Your task to perform on an android device: install app "VLC for Android" Image 0: 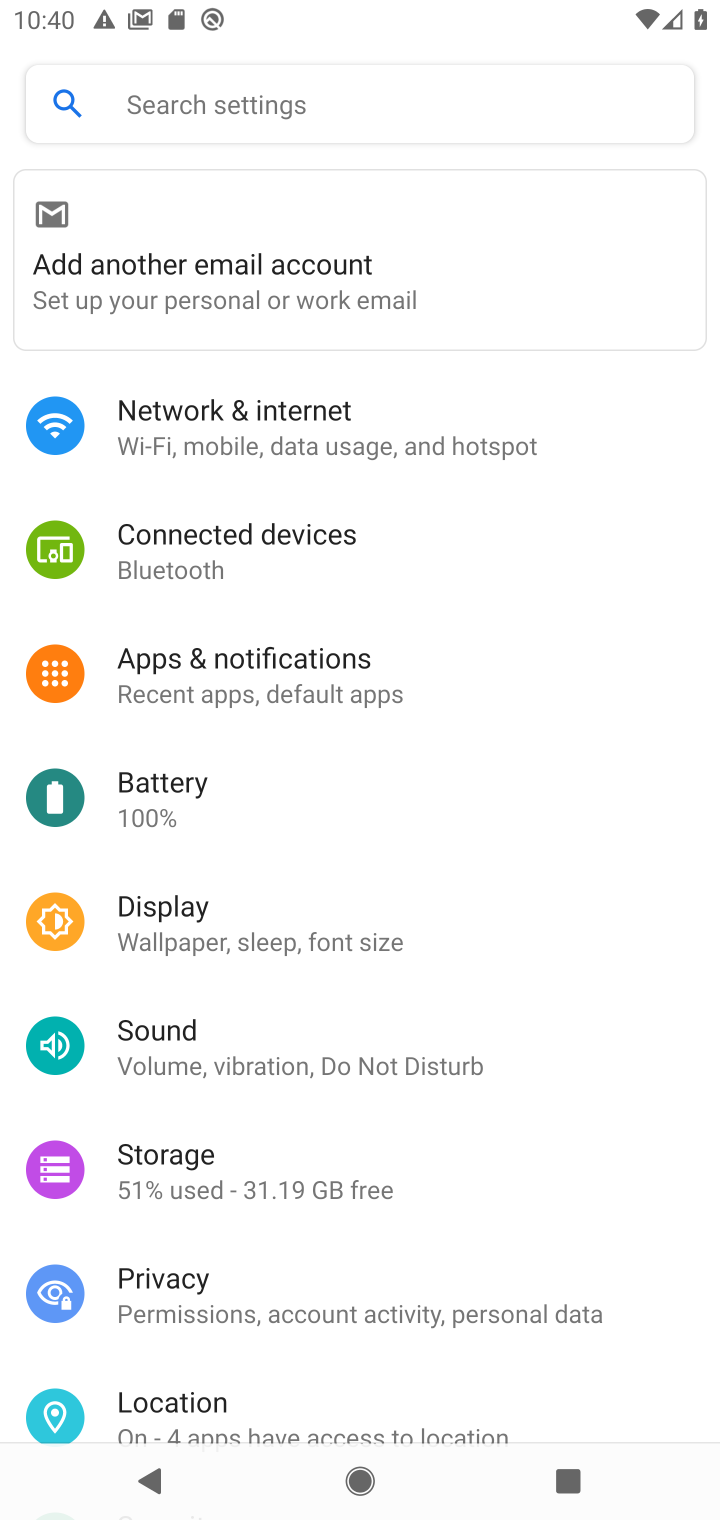
Step 0: press home button
Your task to perform on an android device: install app "VLC for Android" Image 1: 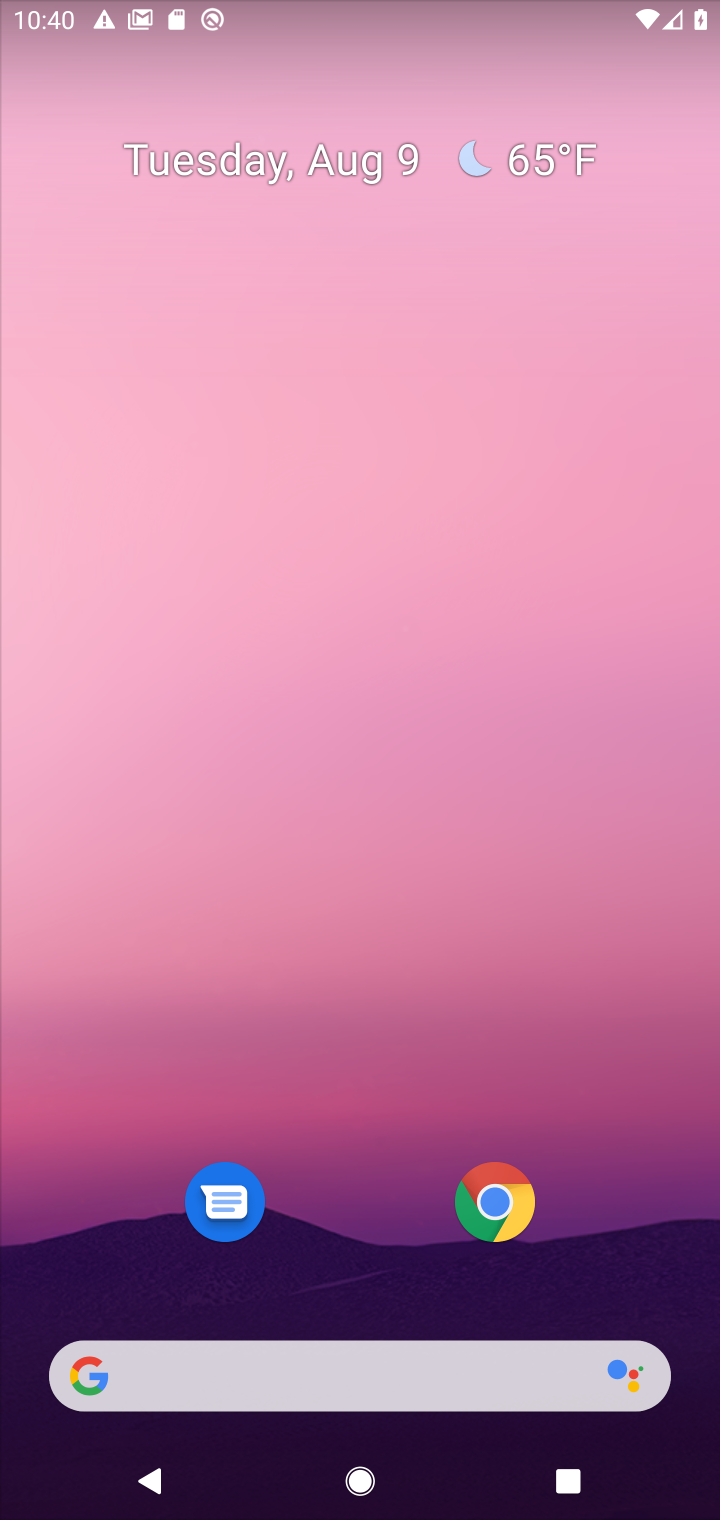
Step 1: drag from (325, 1352) to (281, 273)
Your task to perform on an android device: install app "VLC for Android" Image 2: 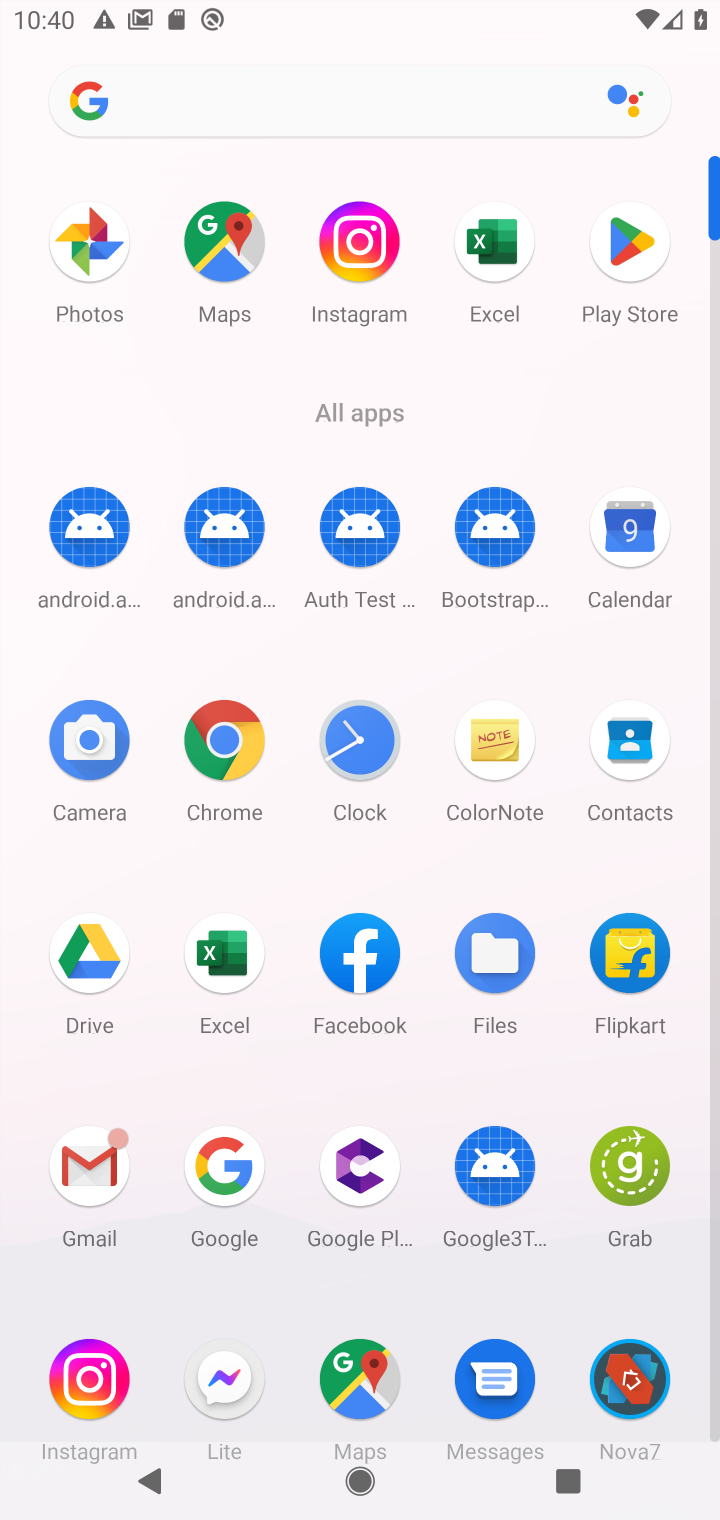
Step 2: click (620, 248)
Your task to perform on an android device: install app "VLC for Android" Image 3: 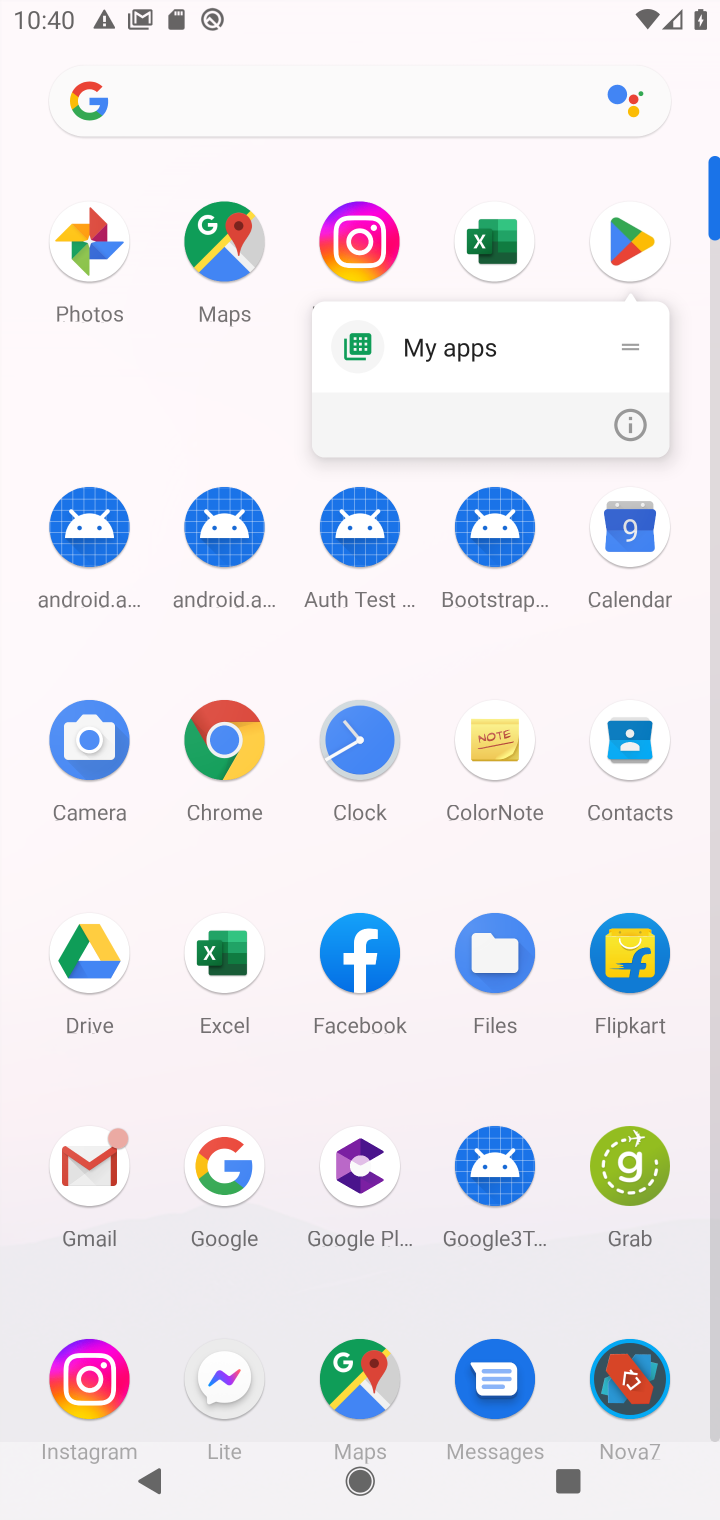
Step 3: click (620, 248)
Your task to perform on an android device: install app "VLC for Android" Image 4: 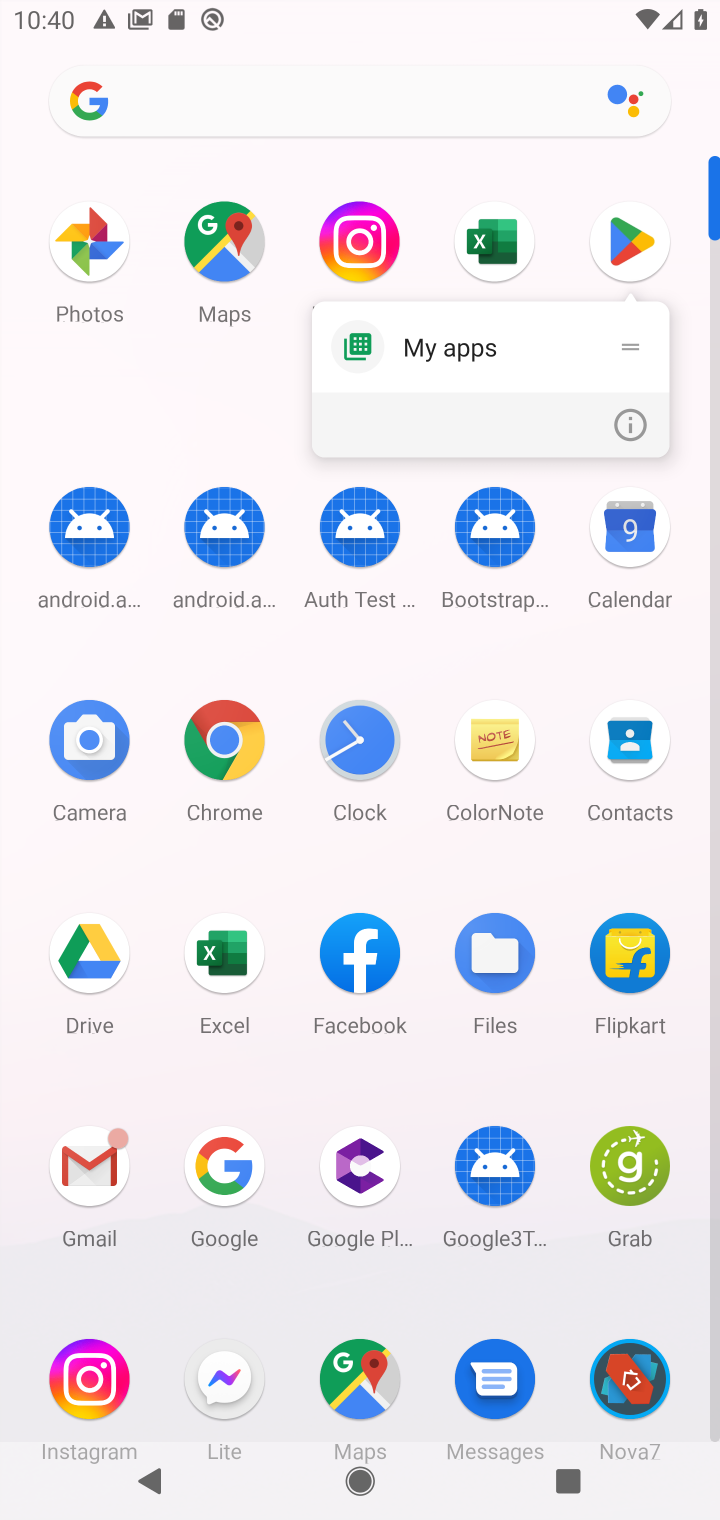
Step 4: click (620, 248)
Your task to perform on an android device: install app "VLC for Android" Image 5: 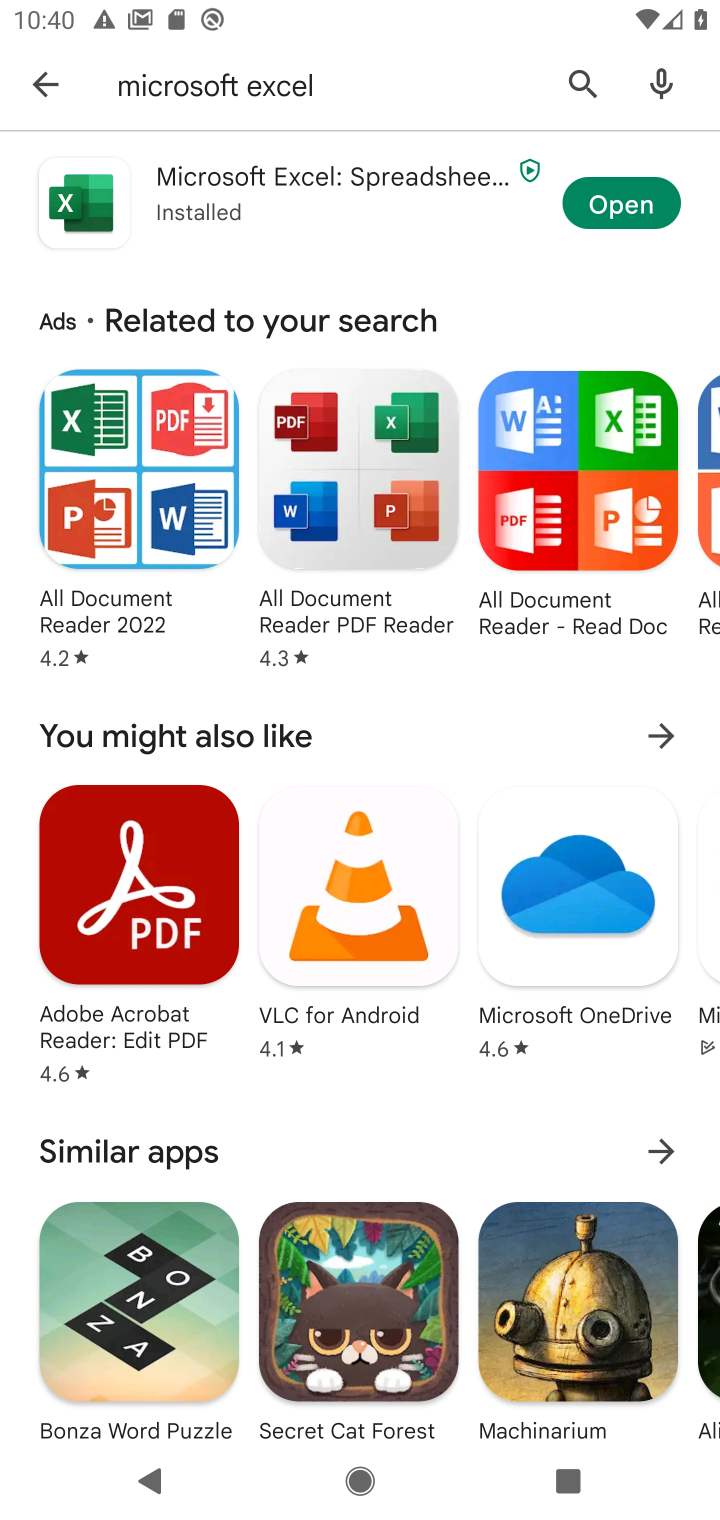
Step 5: click (594, 97)
Your task to perform on an android device: install app "VLC for Android" Image 6: 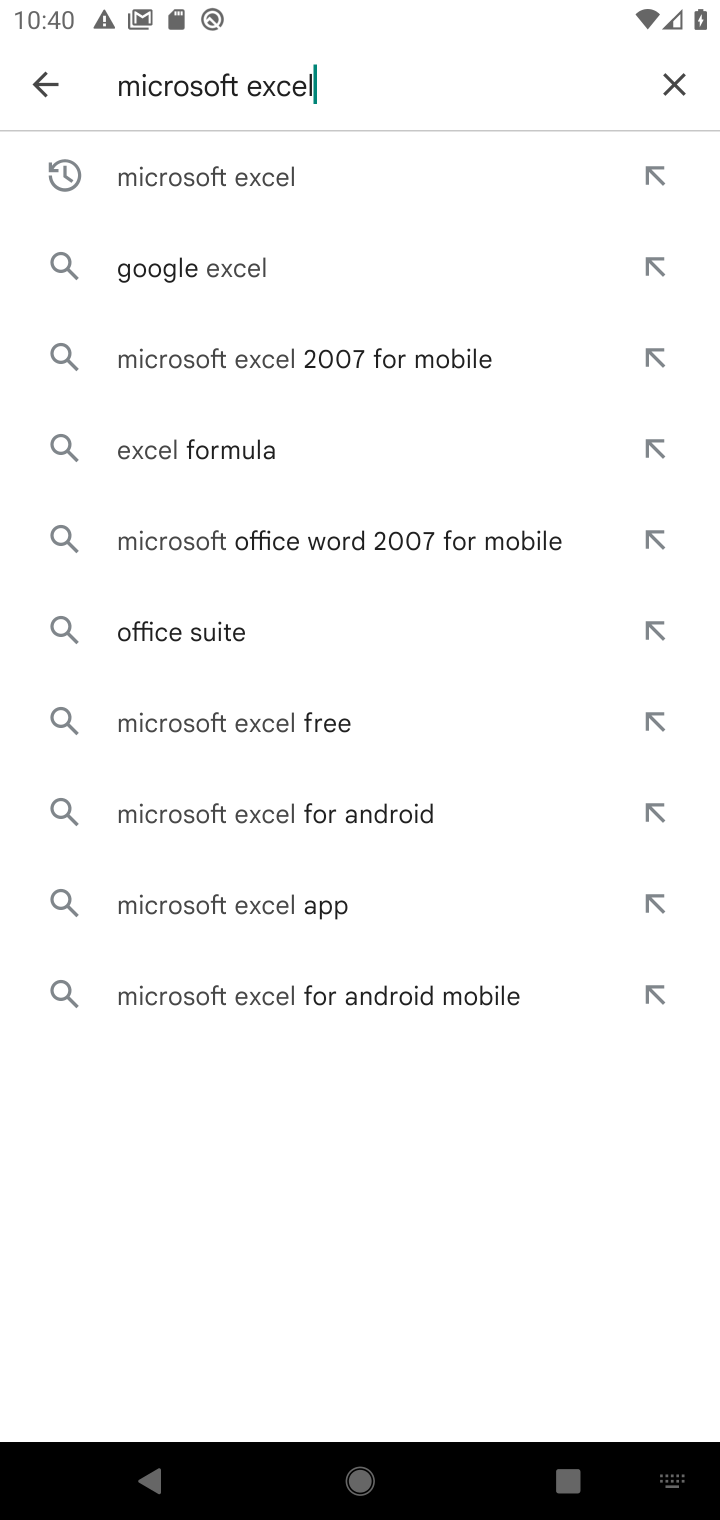
Step 6: click (665, 86)
Your task to perform on an android device: install app "VLC for Android" Image 7: 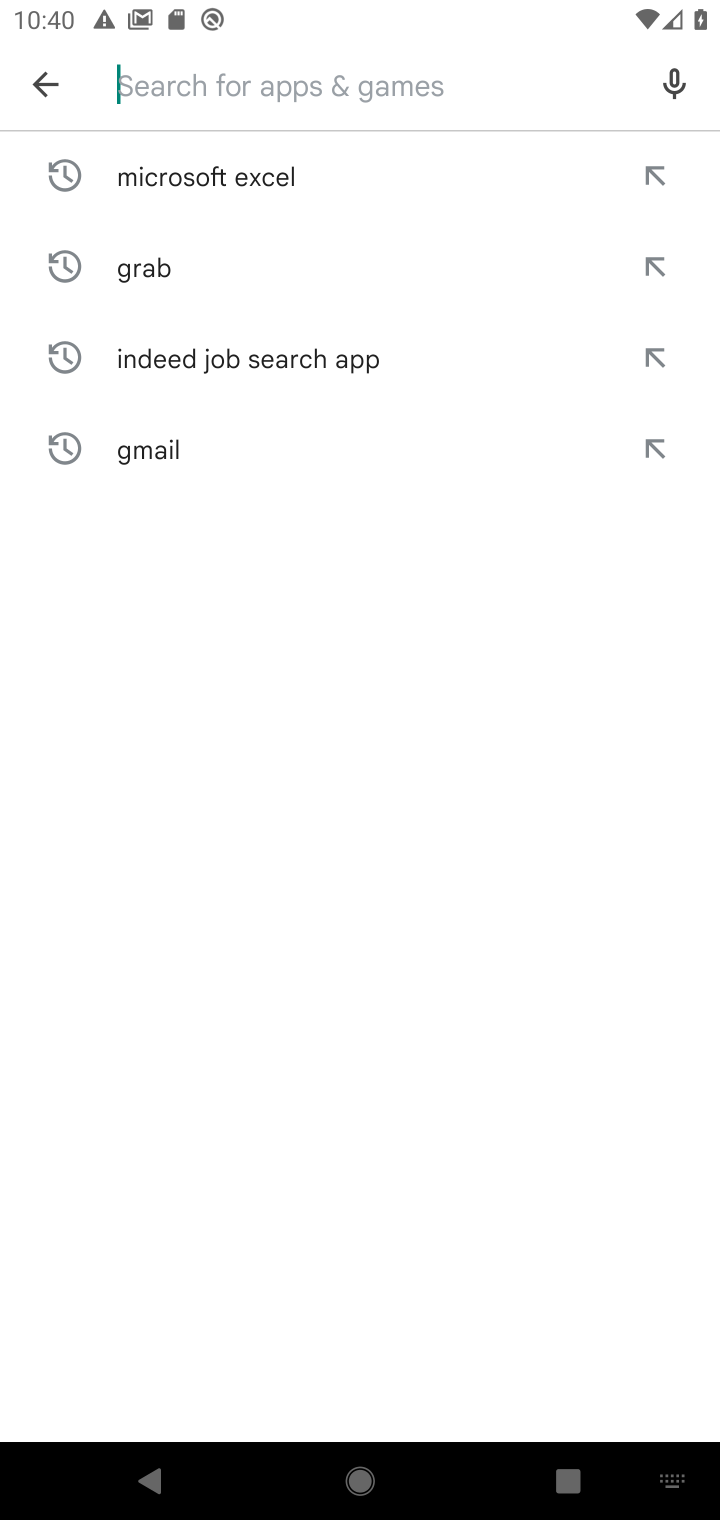
Step 7: type "VLC for Android"
Your task to perform on an android device: install app "VLC for Android" Image 8: 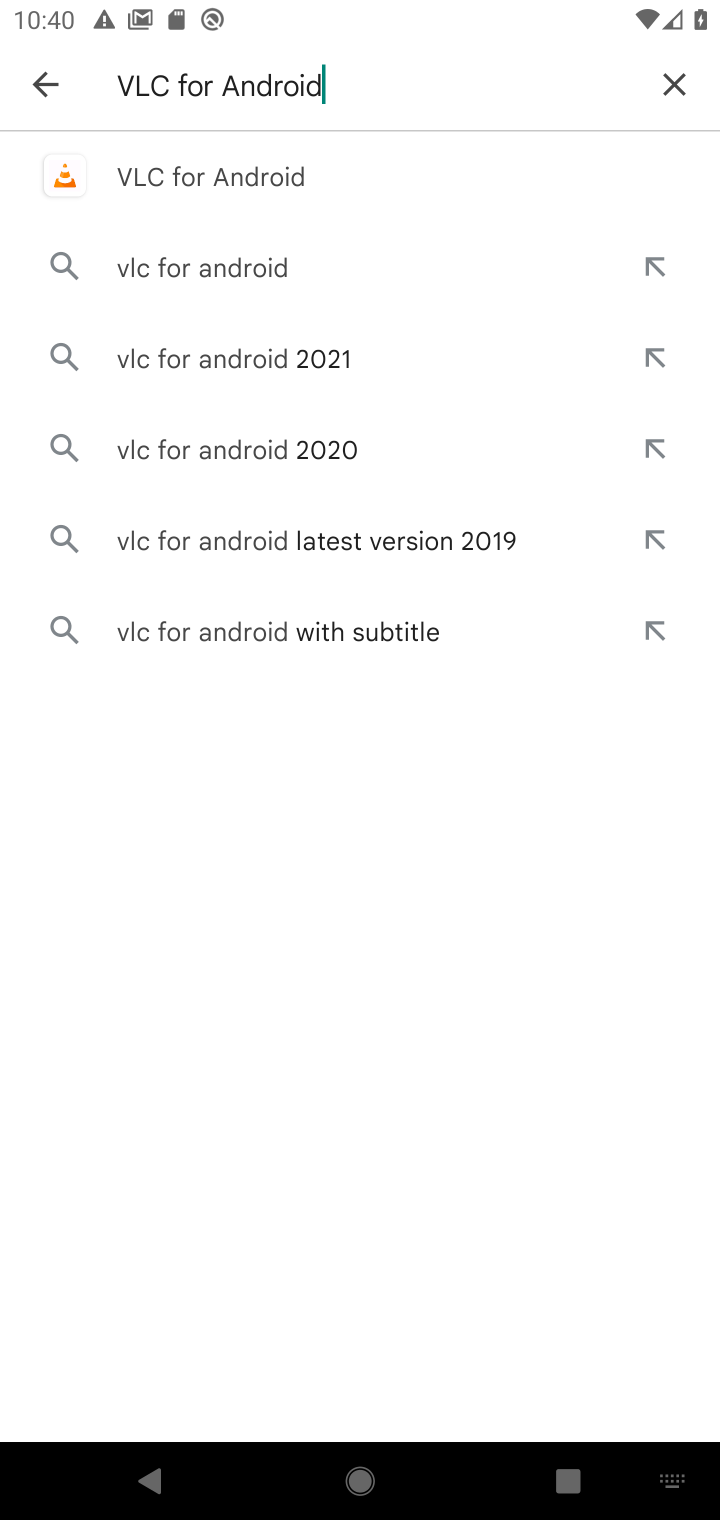
Step 8: click (320, 165)
Your task to perform on an android device: install app "VLC for Android" Image 9: 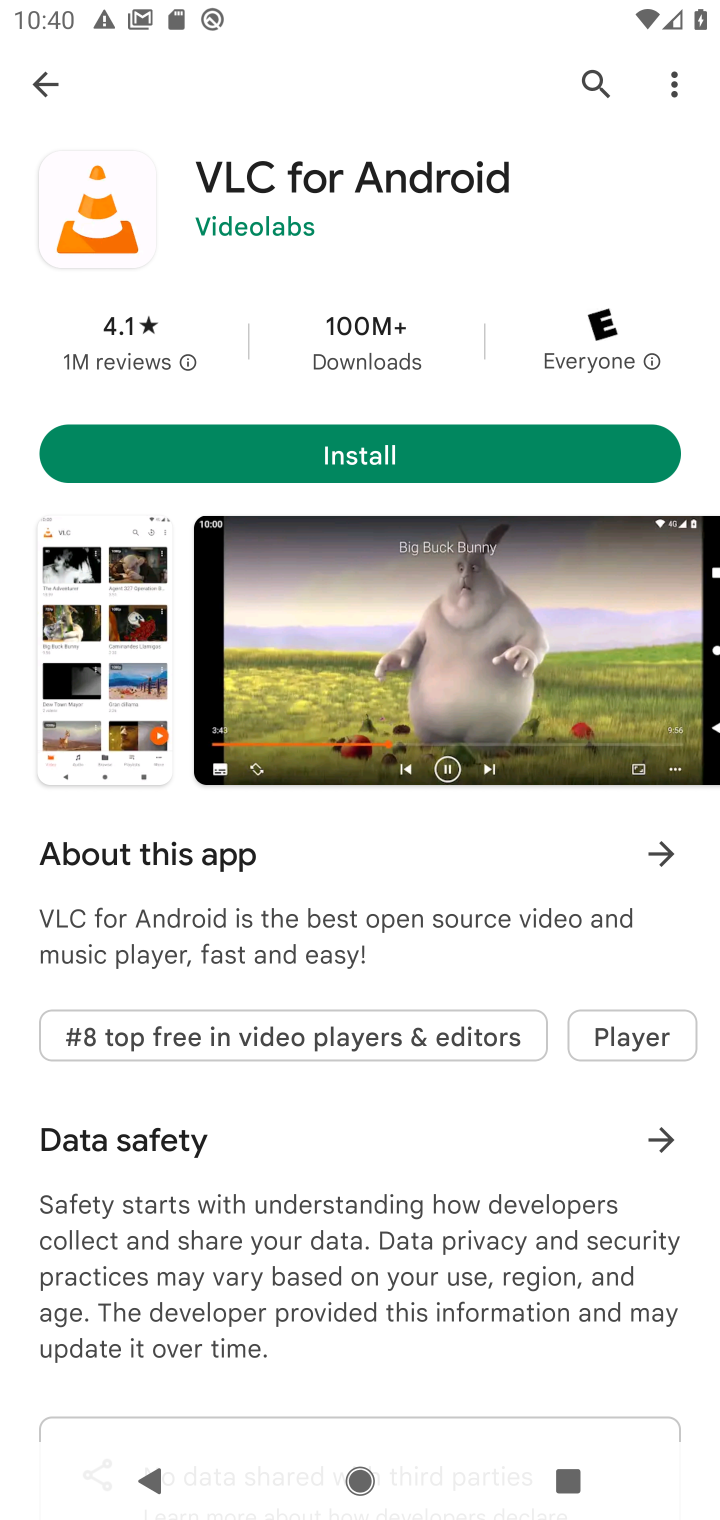
Step 9: click (314, 478)
Your task to perform on an android device: install app "VLC for Android" Image 10: 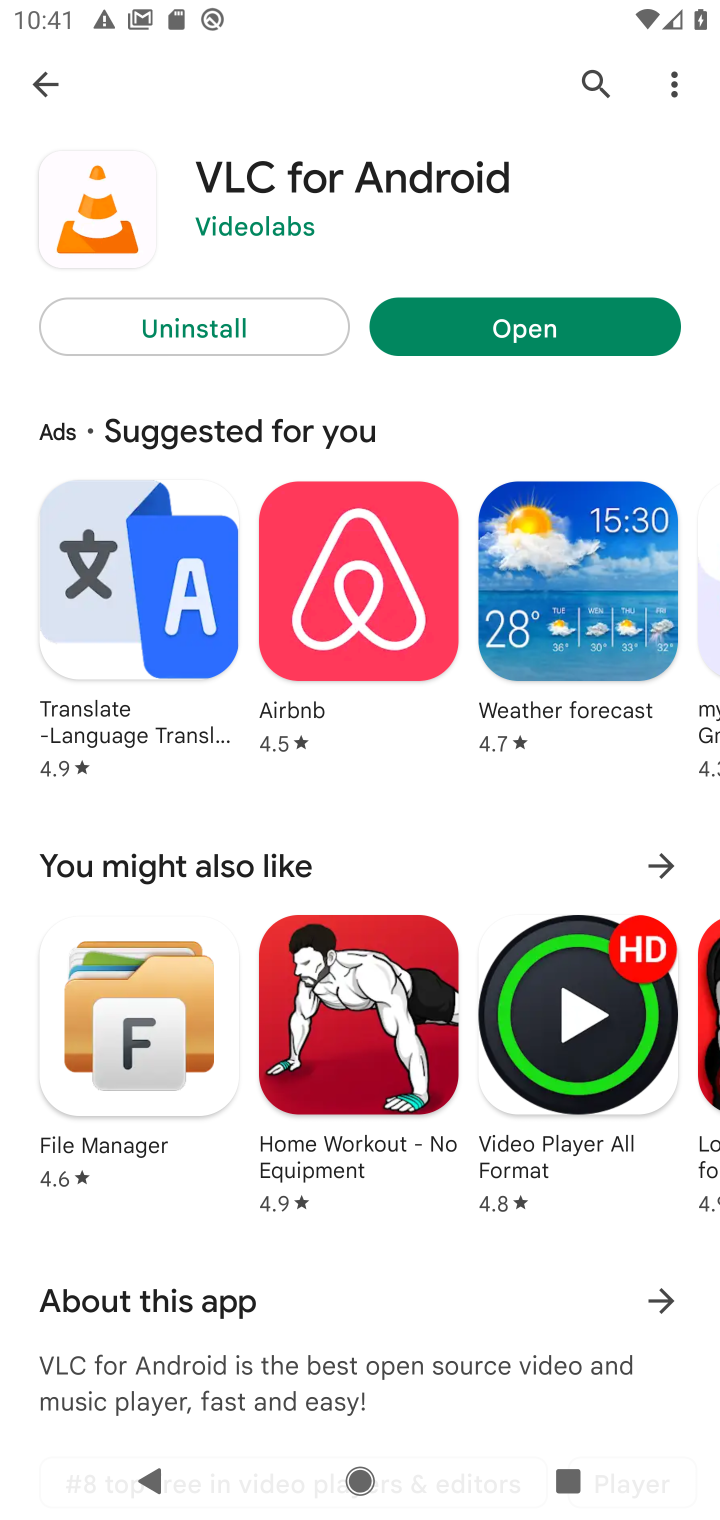
Step 10: task complete